Your task to perform on an android device: Open Chrome and go to settings Image 0: 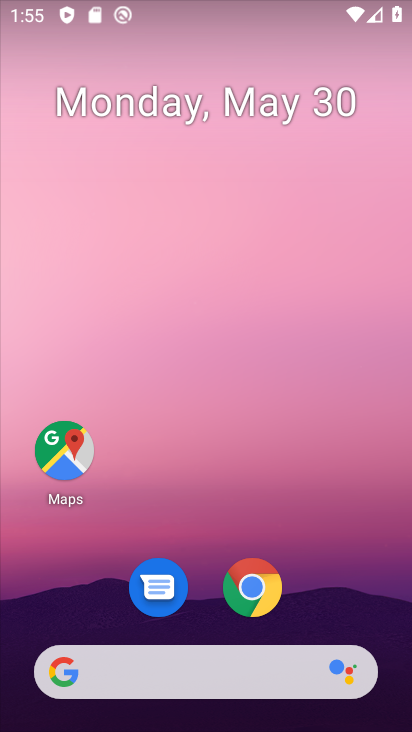
Step 0: click (260, 593)
Your task to perform on an android device: Open Chrome and go to settings Image 1: 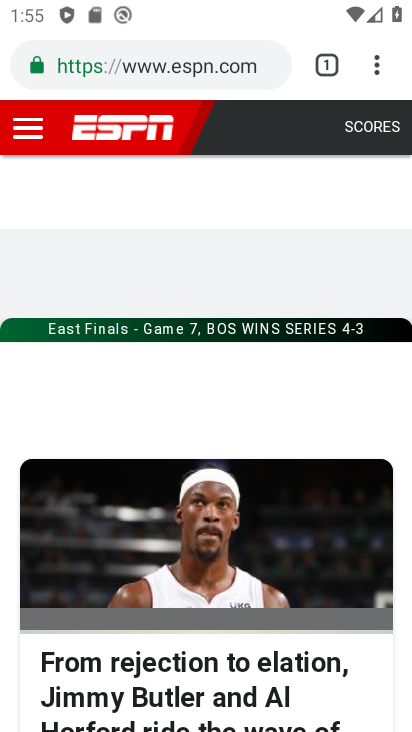
Step 1: click (374, 70)
Your task to perform on an android device: Open Chrome and go to settings Image 2: 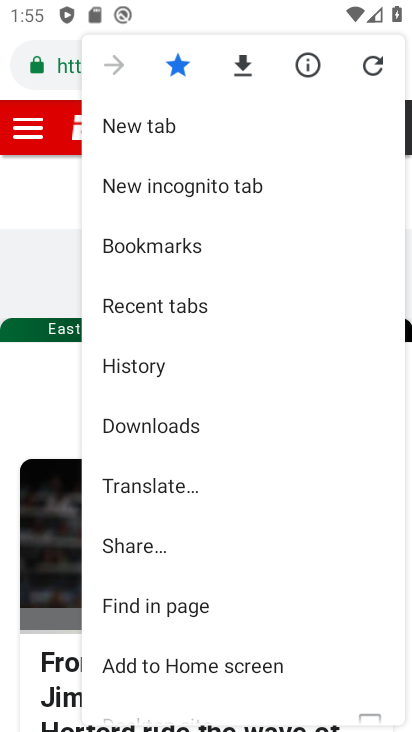
Step 2: drag from (252, 578) to (197, 247)
Your task to perform on an android device: Open Chrome and go to settings Image 3: 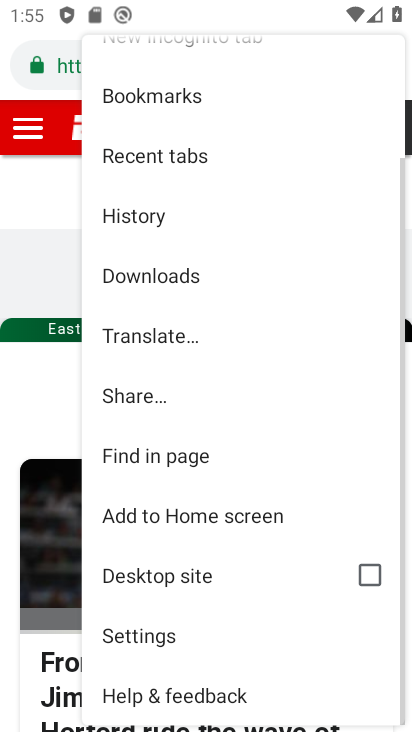
Step 3: click (173, 633)
Your task to perform on an android device: Open Chrome and go to settings Image 4: 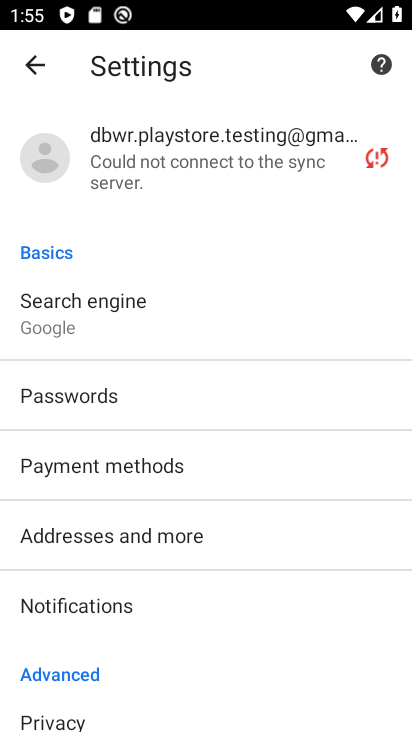
Step 4: task complete